Your task to perform on an android device: open device folders in google photos Image 0: 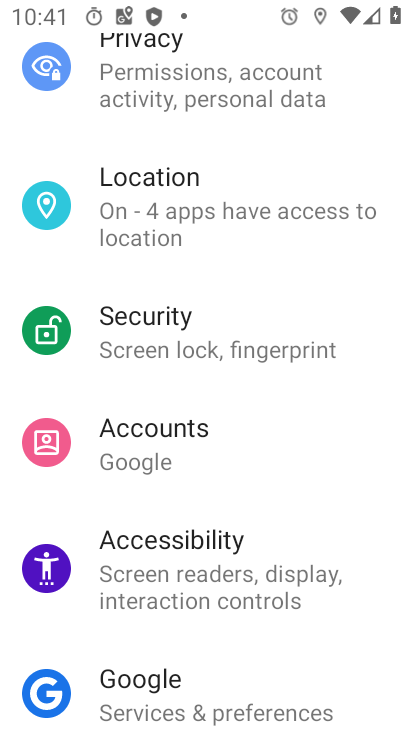
Step 0: press home button
Your task to perform on an android device: open device folders in google photos Image 1: 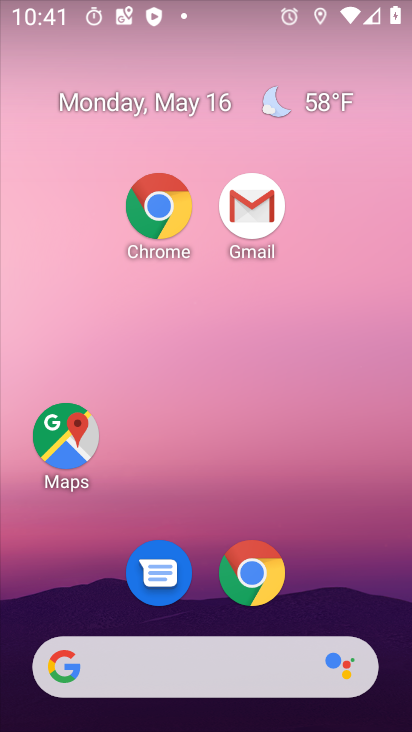
Step 1: drag from (344, 671) to (135, 83)
Your task to perform on an android device: open device folders in google photos Image 2: 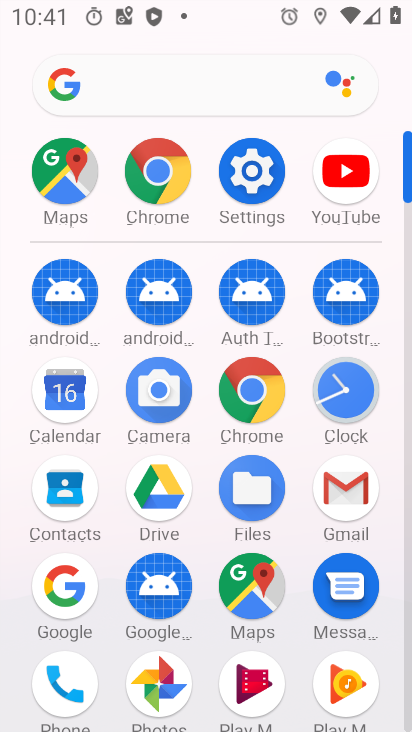
Step 2: click (158, 679)
Your task to perform on an android device: open device folders in google photos Image 3: 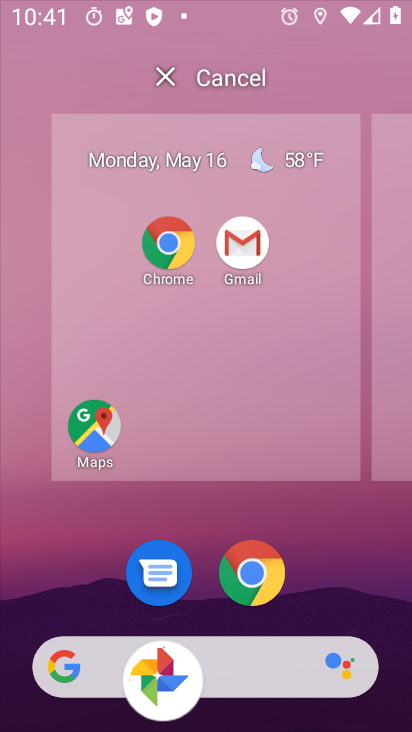
Step 3: click (162, 676)
Your task to perform on an android device: open device folders in google photos Image 4: 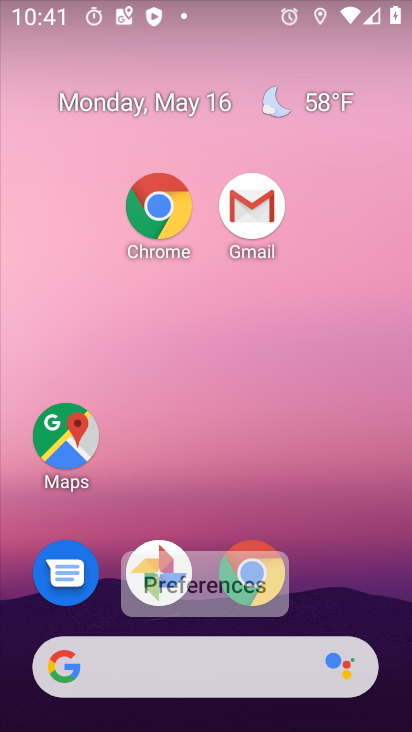
Step 4: click (161, 670)
Your task to perform on an android device: open device folders in google photos Image 5: 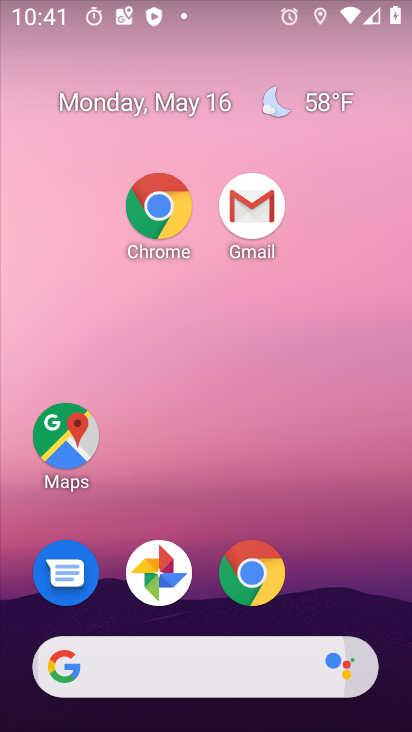
Step 5: click (160, 663)
Your task to perform on an android device: open device folders in google photos Image 6: 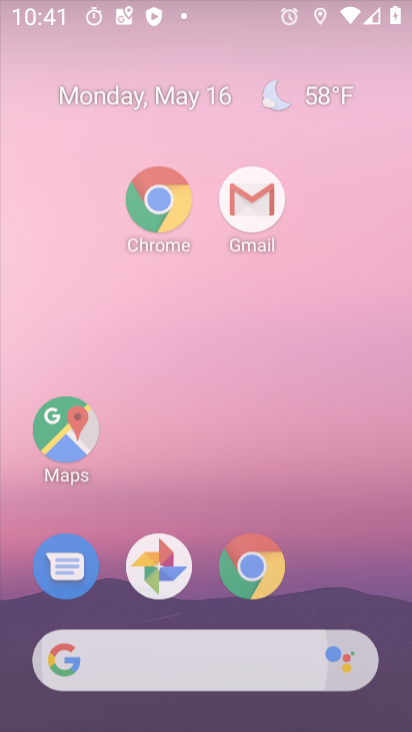
Step 6: click (160, 663)
Your task to perform on an android device: open device folders in google photos Image 7: 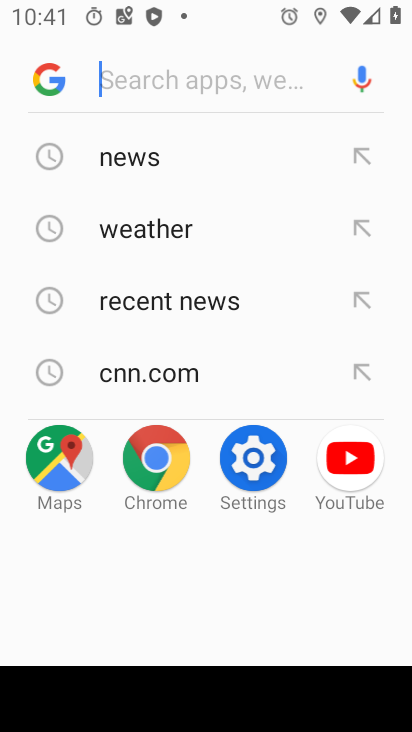
Step 7: click (168, 559)
Your task to perform on an android device: open device folders in google photos Image 8: 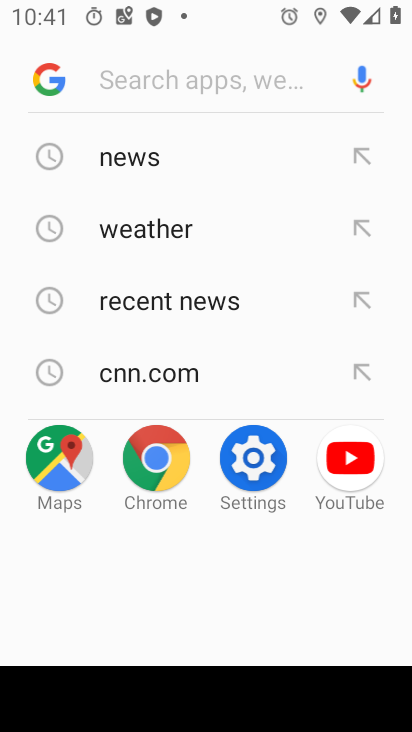
Step 8: press back button
Your task to perform on an android device: open device folders in google photos Image 9: 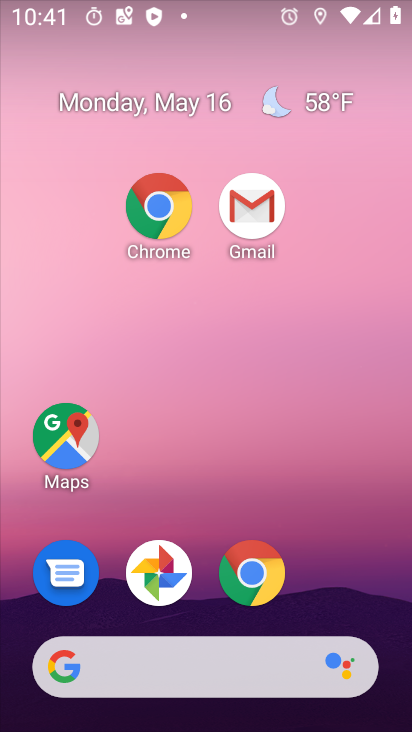
Step 9: drag from (331, 636) to (148, 206)
Your task to perform on an android device: open device folders in google photos Image 10: 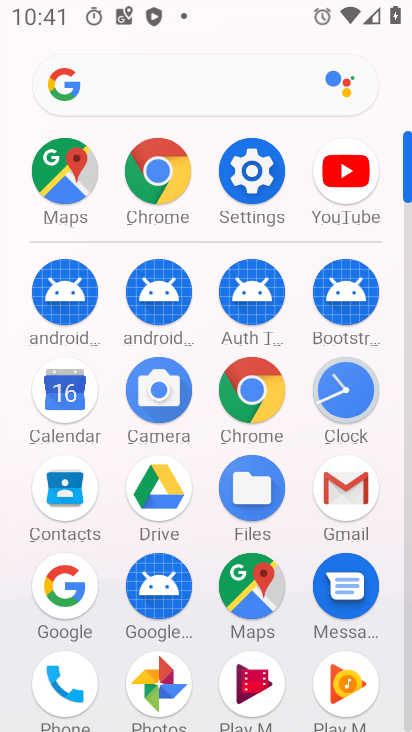
Step 10: click (174, 682)
Your task to perform on an android device: open device folders in google photos Image 11: 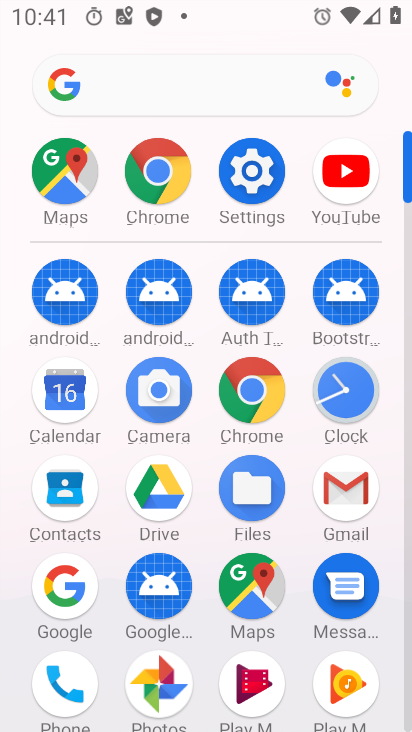
Step 11: click (174, 682)
Your task to perform on an android device: open device folders in google photos Image 12: 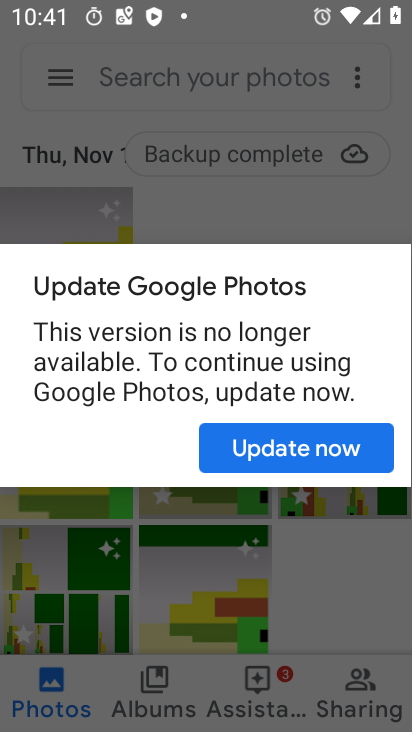
Step 12: click (266, 441)
Your task to perform on an android device: open device folders in google photos Image 13: 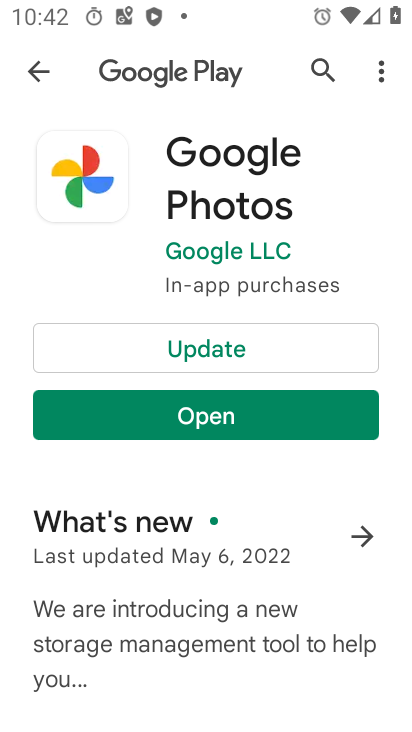
Step 13: click (218, 357)
Your task to perform on an android device: open device folders in google photos Image 14: 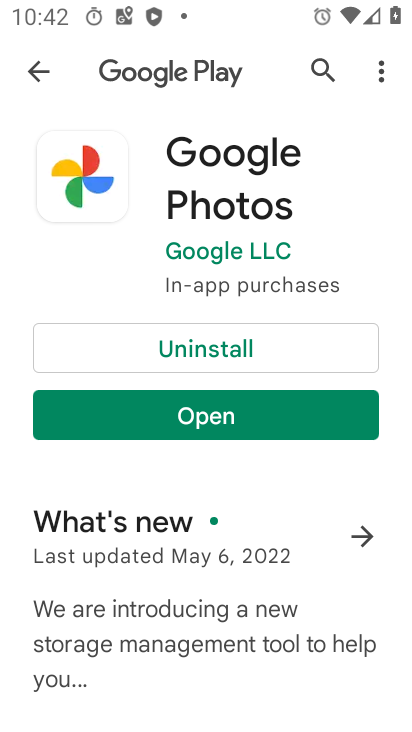
Step 14: click (217, 417)
Your task to perform on an android device: open device folders in google photos Image 15: 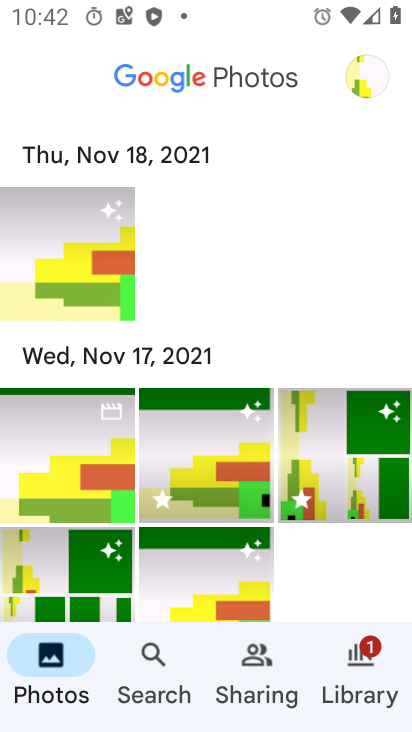
Step 15: task complete